Your task to perform on an android device: toggle priority inbox in the gmail app Image 0: 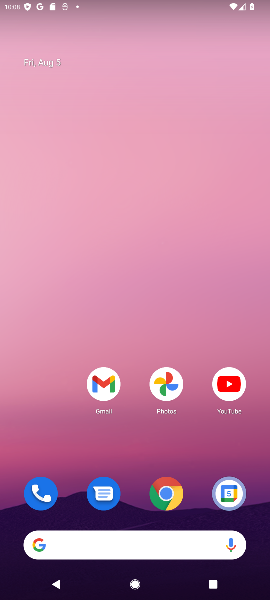
Step 0: press home button
Your task to perform on an android device: toggle priority inbox in the gmail app Image 1: 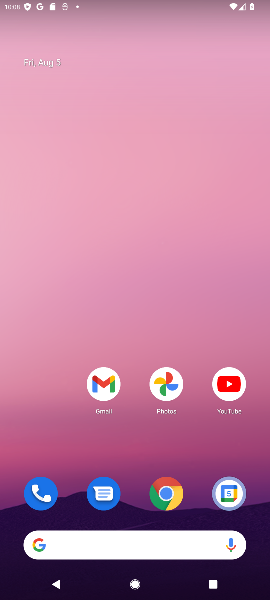
Step 1: drag from (134, 460) to (151, 13)
Your task to perform on an android device: toggle priority inbox in the gmail app Image 2: 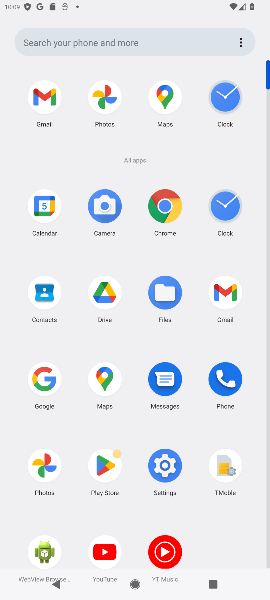
Step 2: click (230, 282)
Your task to perform on an android device: toggle priority inbox in the gmail app Image 3: 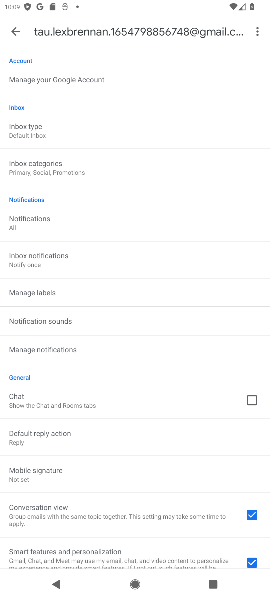
Step 3: click (56, 129)
Your task to perform on an android device: toggle priority inbox in the gmail app Image 4: 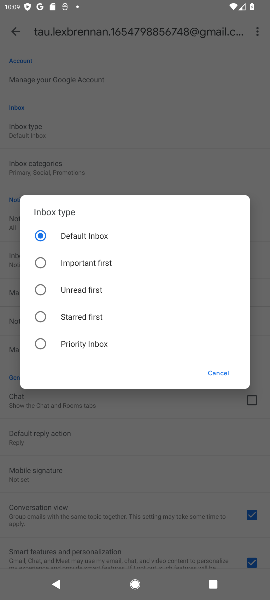
Step 4: click (47, 347)
Your task to perform on an android device: toggle priority inbox in the gmail app Image 5: 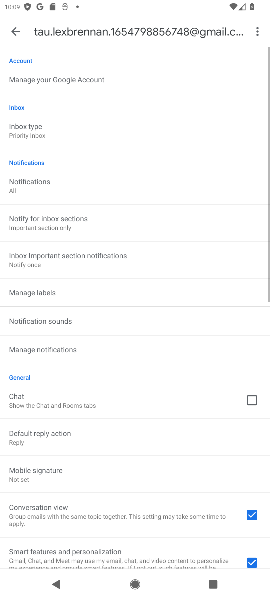
Step 5: task complete